Your task to perform on an android device: see tabs open on other devices in the chrome app Image 0: 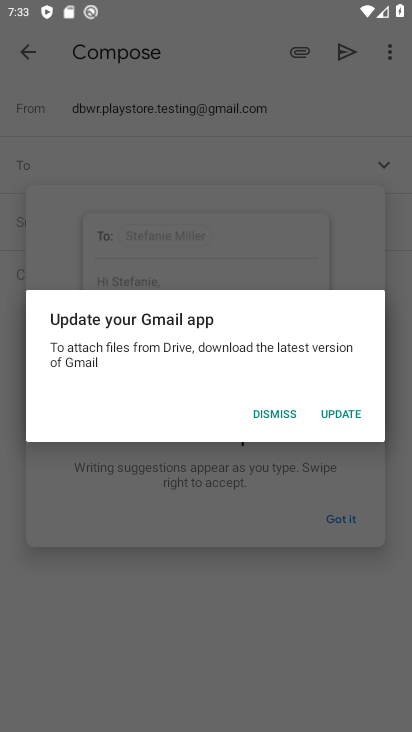
Step 0: press home button
Your task to perform on an android device: see tabs open on other devices in the chrome app Image 1: 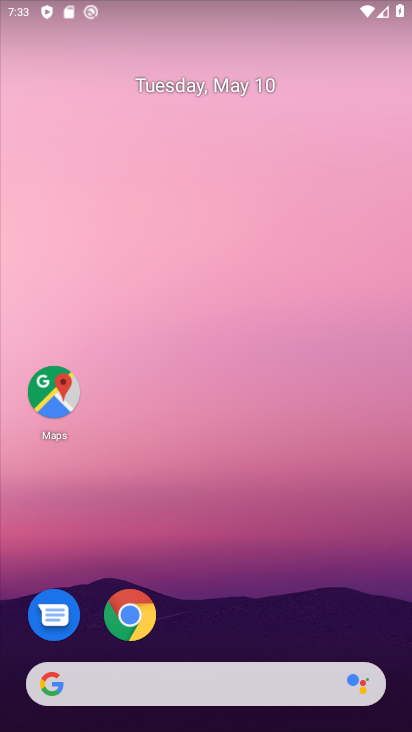
Step 1: click (125, 608)
Your task to perform on an android device: see tabs open on other devices in the chrome app Image 2: 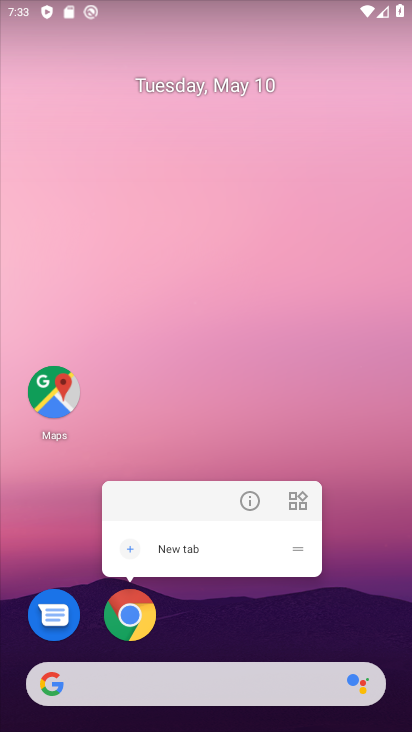
Step 2: click (260, 503)
Your task to perform on an android device: see tabs open on other devices in the chrome app Image 3: 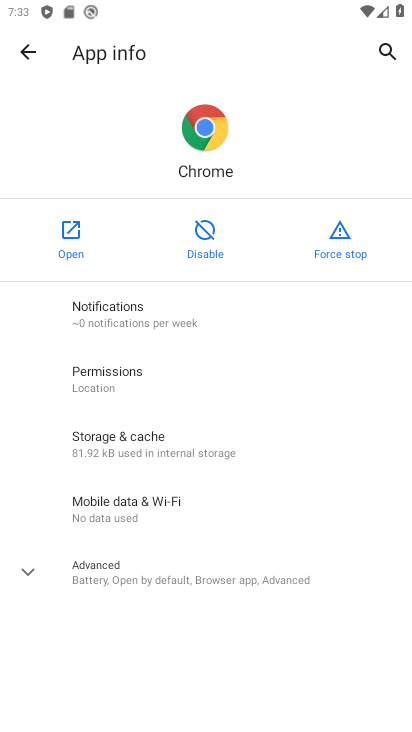
Step 3: click (54, 245)
Your task to perform on an android device: see tabs open on other devices in the chrome app Image 4: 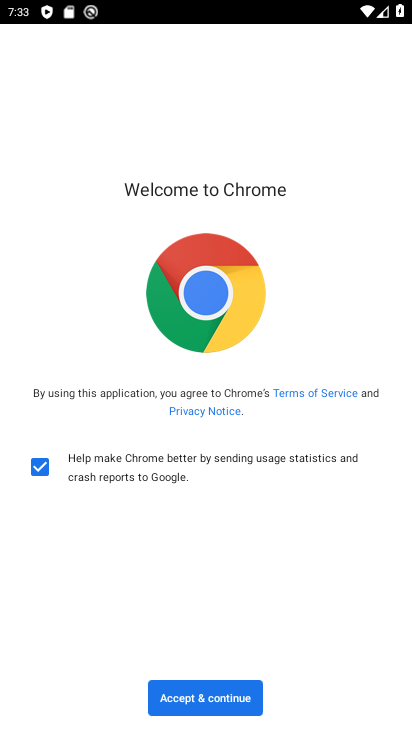
Step 4: click (185, 693)
Your task to perform on an android device: see tabs open on other devices in the chrome app Image 5: 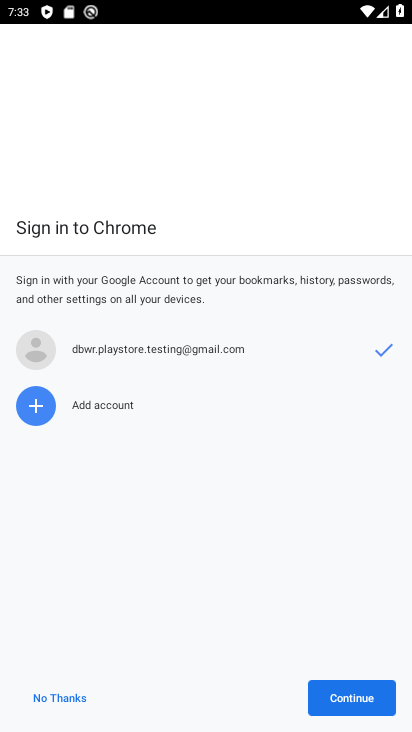
Step 5: click (354, 710)
Your task to perform on an android device: see tabs open on other devices in the chrome app Image 6: 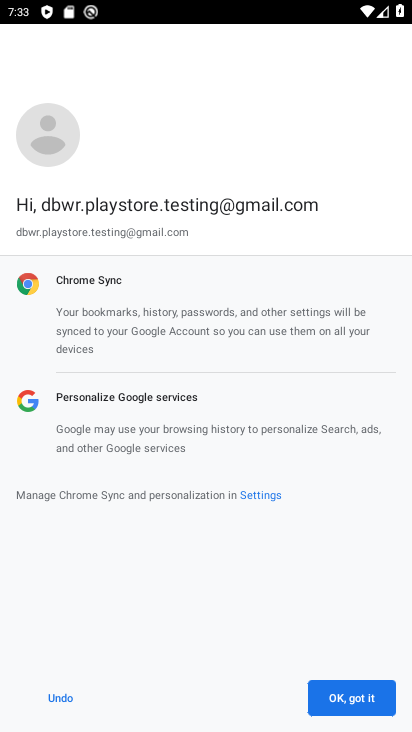
Step 6: click (349, 706)
Your task to perform on an android device: see tabs open on other devices in the chrome app Image 7: 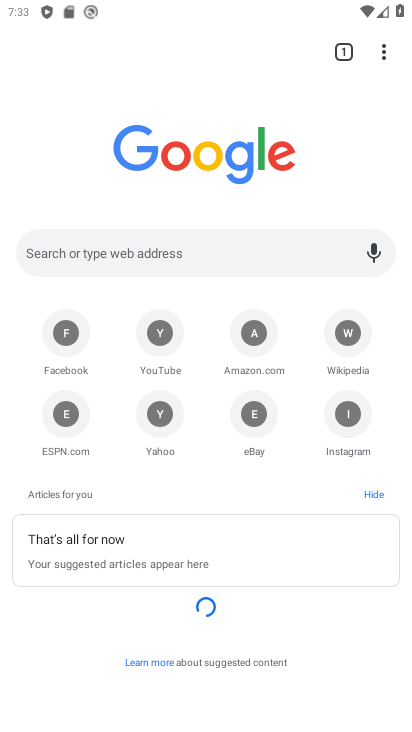
Step 7: task complete